Your task to perform on an android device: Open the calendar app, open the side menu, and click the "Day" option Image 0: 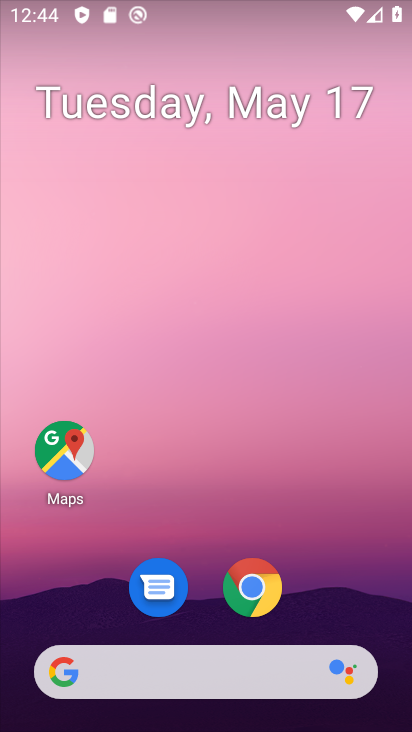
Step 0: drag from (345, 606) to (309, 314)
Your task to perform on an android device: Open the calendar app, open the side menu, and click the "Day" option Image 1: 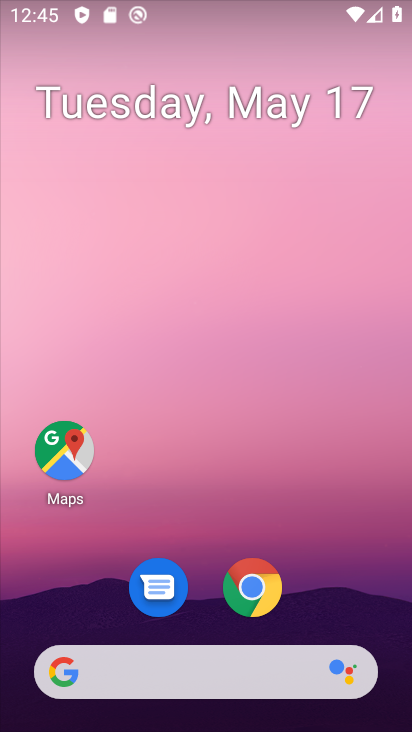
Step 1: drag from (336, 575) to (293, 223)
Your task to perform on an android device: Open the calendar app, open the side menu, and click the "Day" option Image 2: 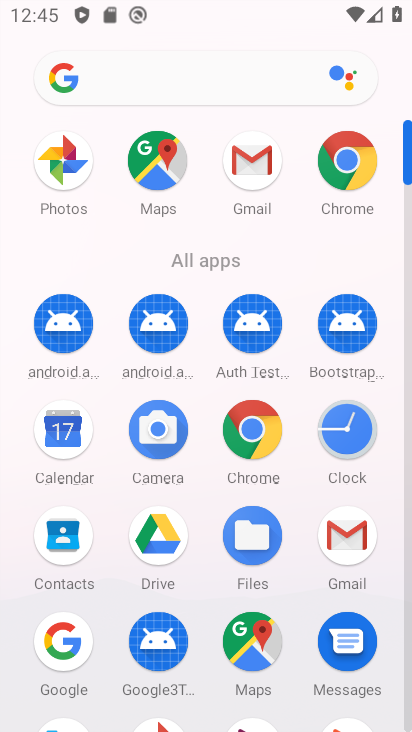
Step 2: click (78, 444)
Your task to perform on an android device: Open the calendar app, open the side menu, and click the "Day" option Image 3: 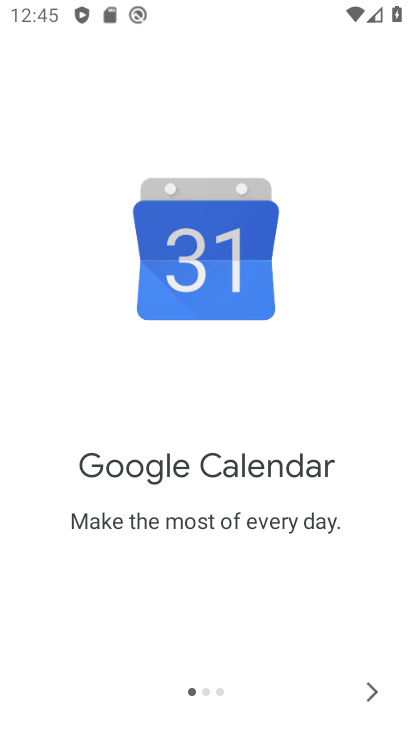
Step 3: click (367, 687)
Your task to perform on an android device: Open the calendar app, open the side menu, and click the "Day" option Image 4: 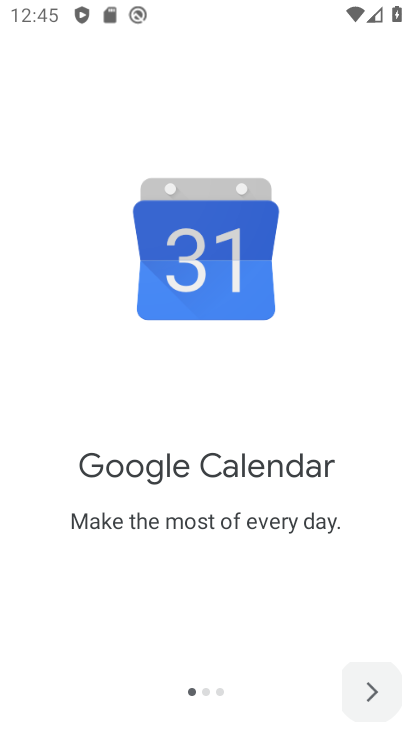
Step 4: click (367, 687)
Your task to perform on an android device: Open the calendar app, open the side menu, and click the "Day" option Image 5: 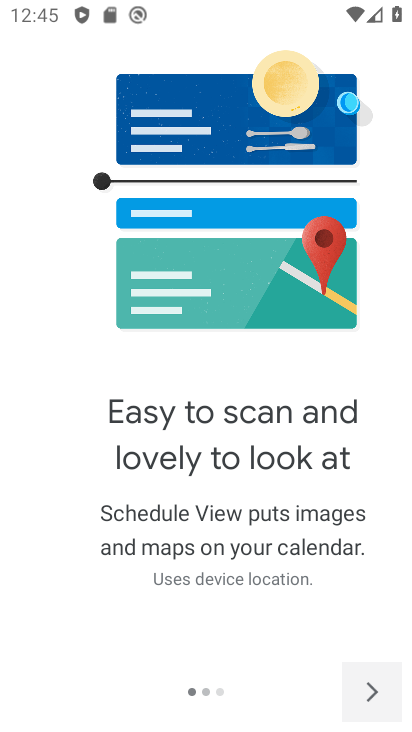
Step 5: click (367, 687)
Your task to perform on an android device: Open the calendar app, open the side menu, and click the "Day" option Image 6: 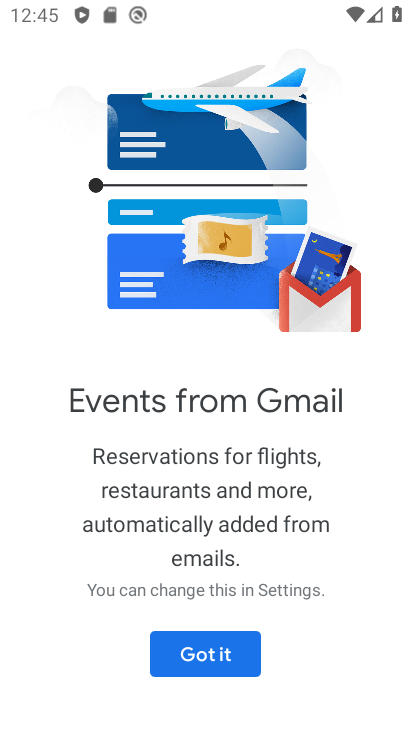
Step 6: click (170, 654)
Your task to perform on an android device: Open the calendar app, open the side menu, and click the "Day" option Image 7: 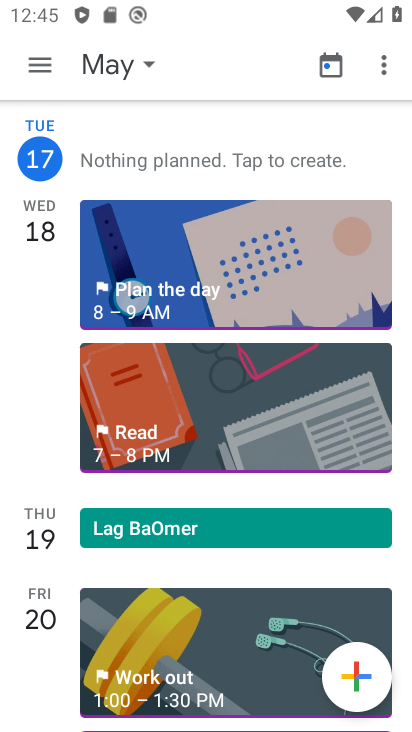
Step 7: click (45, 62)
Your task to perform on an android device: Open the calendar app, open the side menu, and click the "Day" option Image 8: 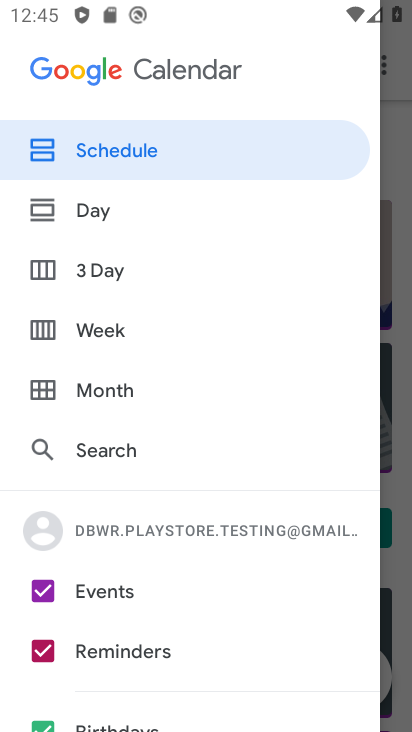
Step 8: click (124, 212)
Your task to perform on an android device: Open the calendar app, open the side menu, and click the "Day" option Image 9: 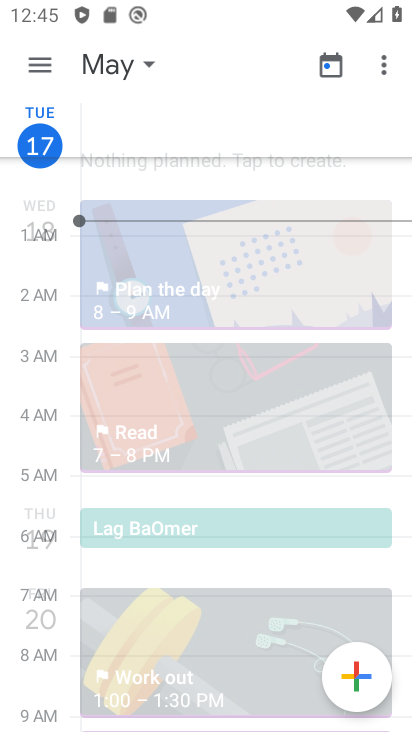
Step 9: task complete